Your task to perform on an android device: toggle show notifications on the lock screen Image 0: 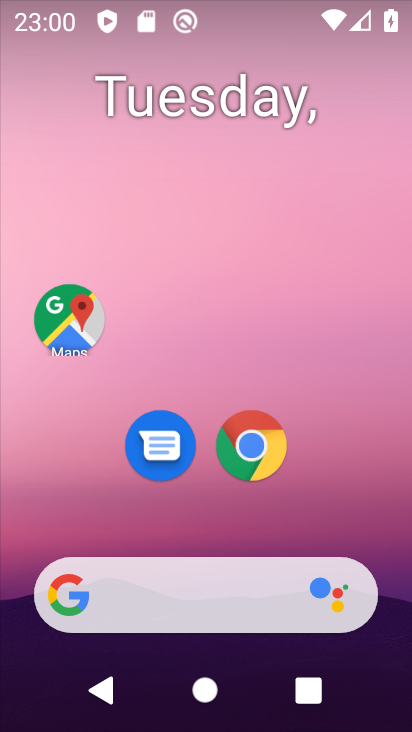
Step 0: drag from (314, 537) to (301, 32)
Your task to perform on an android device: toggle show notifications on the lock screen Image 1: 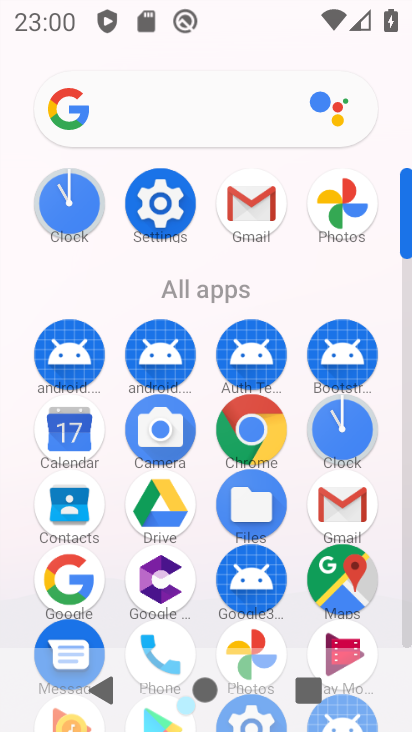
Step 1: click (160, 205)
Your task to perform on an android device: toggle show notifications on the lock screen Image 2: 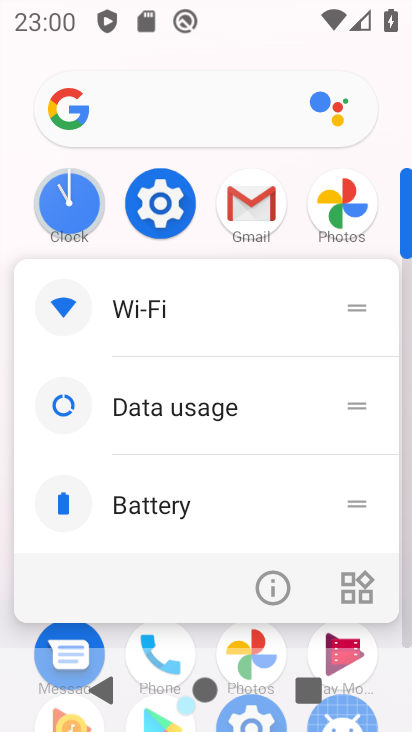
Step 2: click (162, 219)
Your task to perform on an android device: toggle show notifications on the lock screen Image 3: 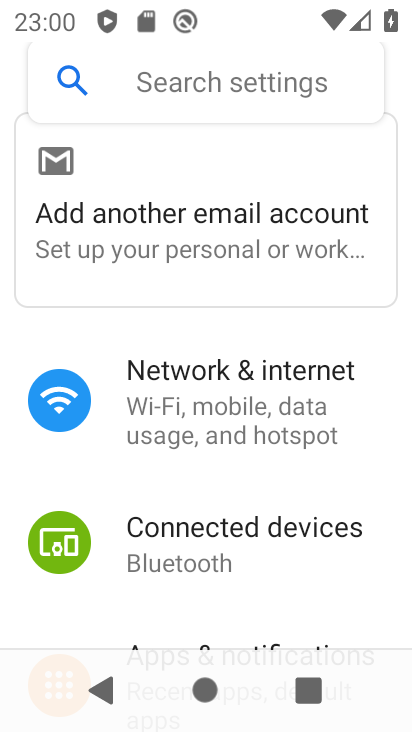
Step 3: drag from (203, 545) to (181, 259)
Your task to perform on an android device: toggle show notifications on the lock screen Image 4: 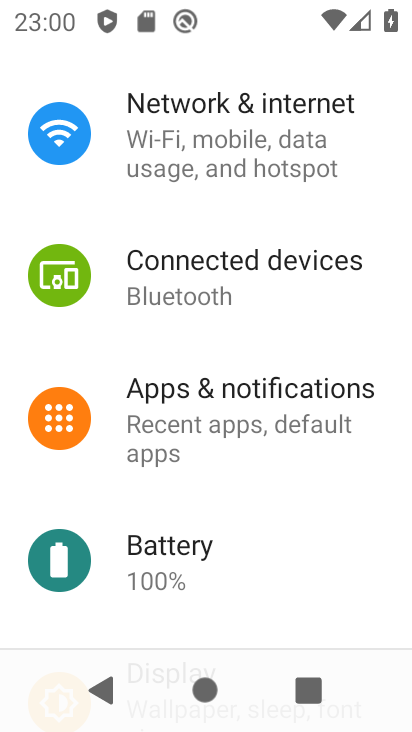
Step 4: click (199, 440)
Your task to perform on an android device: toggle show notifications on the lock screen Image 5: 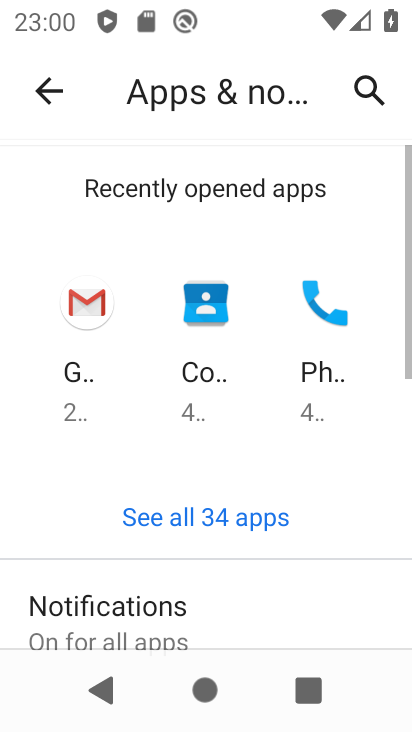
Step 5: click (167, 619)
Your task to perform on an android device: toggle show notifications on the lock screen Image 6: 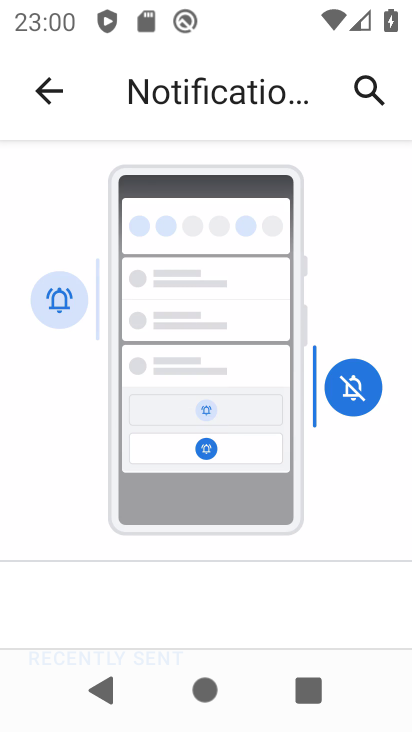
Step 6: drag from (162, 604) to (284, 156)
Your task to perform on an android device: toggle show notifications on the lock screen Image 7: 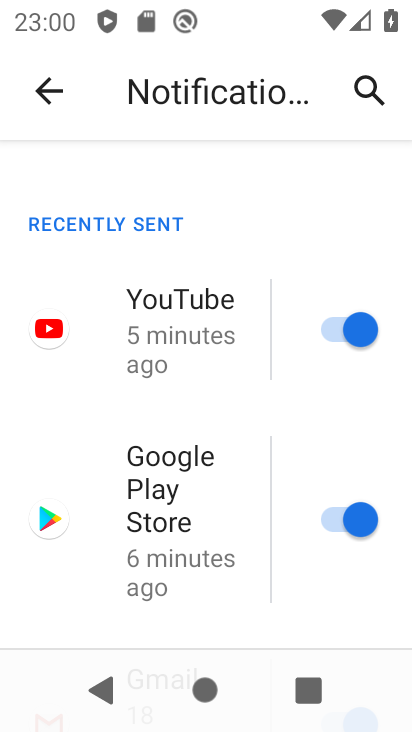
Step 7: drag from (215, 519) to (234, 278)
Your task to perform on an android device: toggle show notifications on the lock screen Image 8: 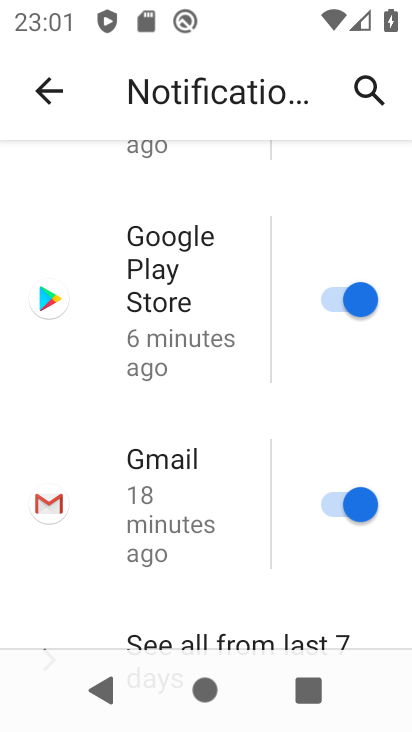
Step 8: drag from (162, 538) to (181, 237)
Your task to perform on an android device: toggle show notifications on the lock screen Image 9: 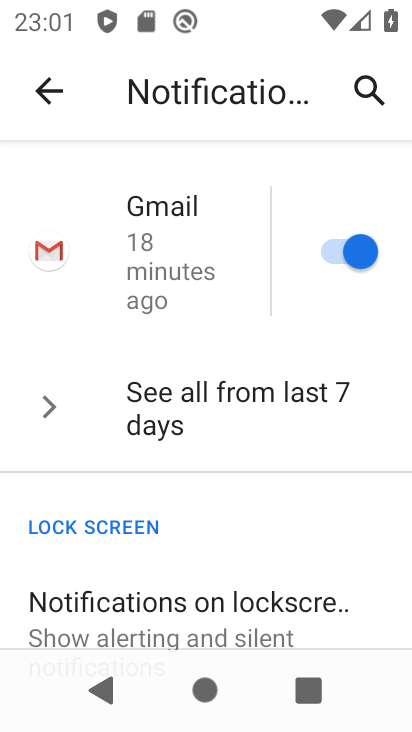
Step 9: drag from (128, 540) to (166, 289)
Your task to perform on an android device: toggle show notifications on the lock screen Image 10: 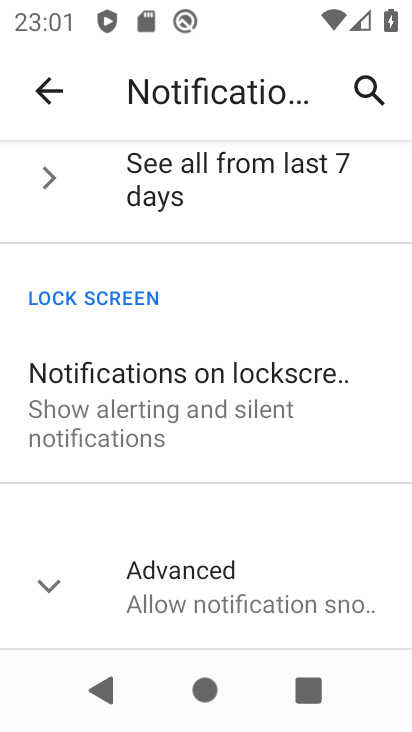
Step 10: click (127, 404)
Your task to perform on an android device: toggle show notifications on the lock screen Image 11: 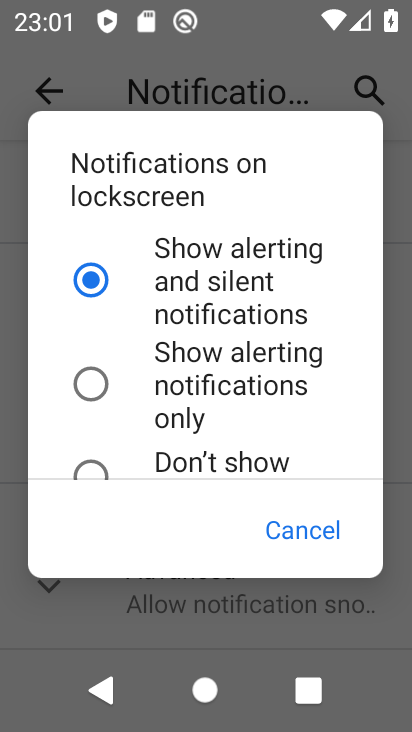
Step 11: click (197, 369)
Your task to perform on an android device: toggle show notifications on the lock screen Image 12: 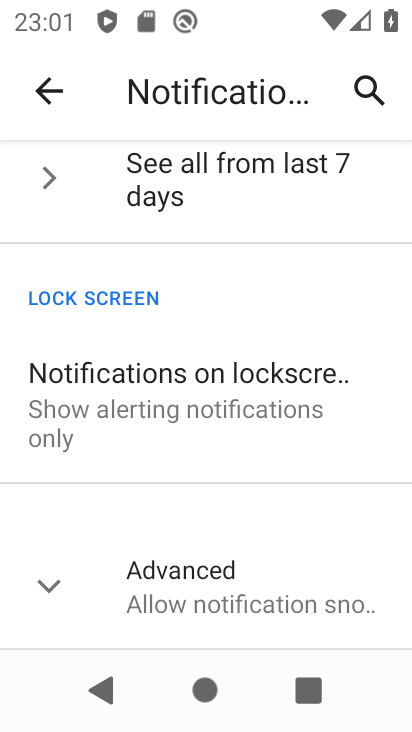
Step 12: task complete